Your task to perform on an android device: Open the stopwatch Image 0: 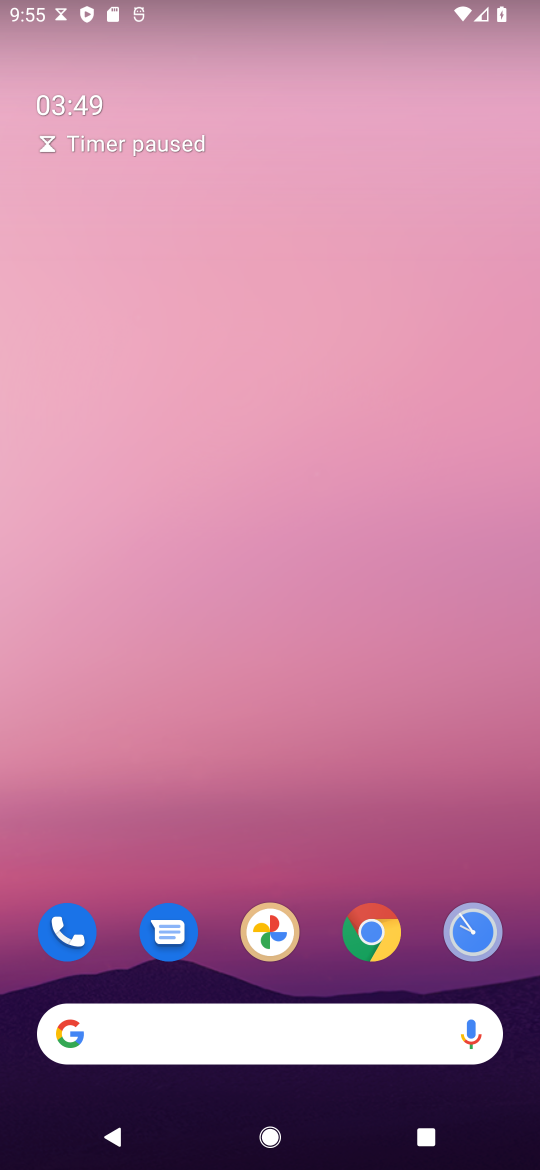
Step 0: drag from (204, 1036) to (372, 338)
Your task to perform on an android device: Open the stopwatch Image 1: 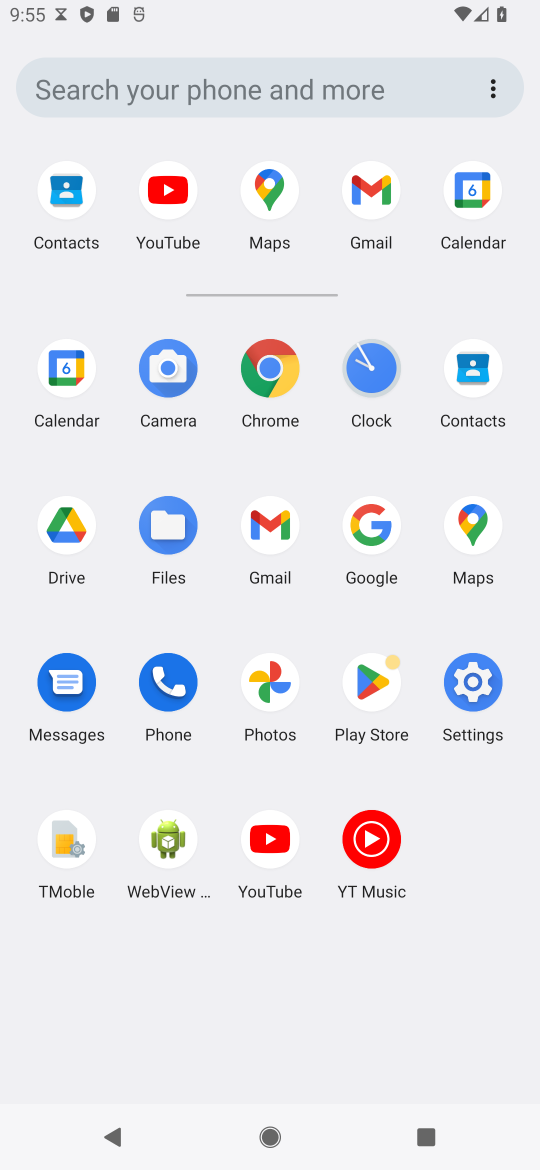
Step 1: click (372, 371)
Your task to perform on an android device: Open the stopwatch Image 2: 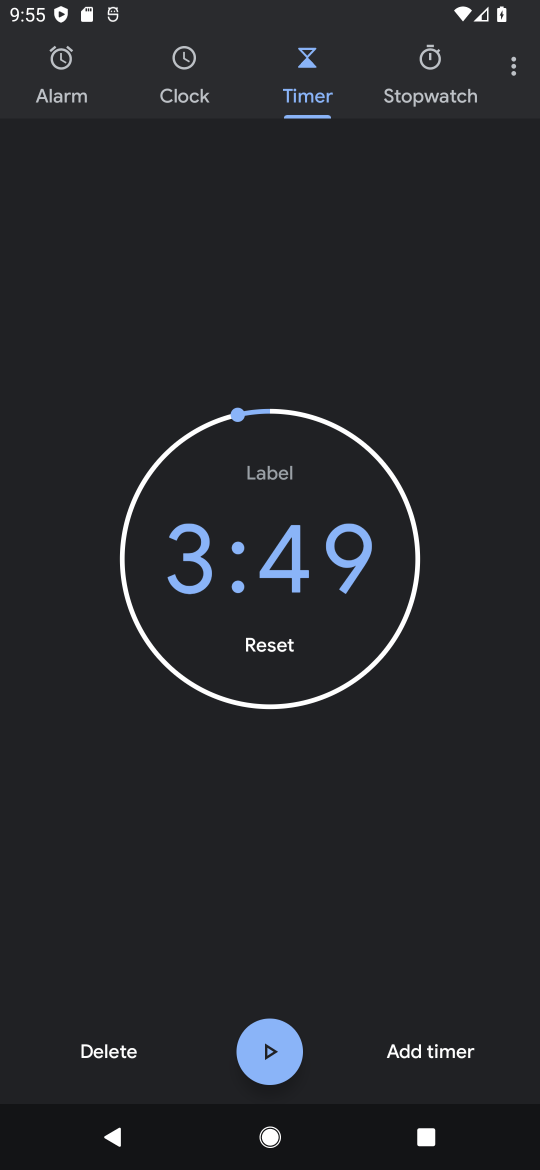
Step 2: click (436, 68)
Your task to perform on an android device: Open the stopwatch Image 3: 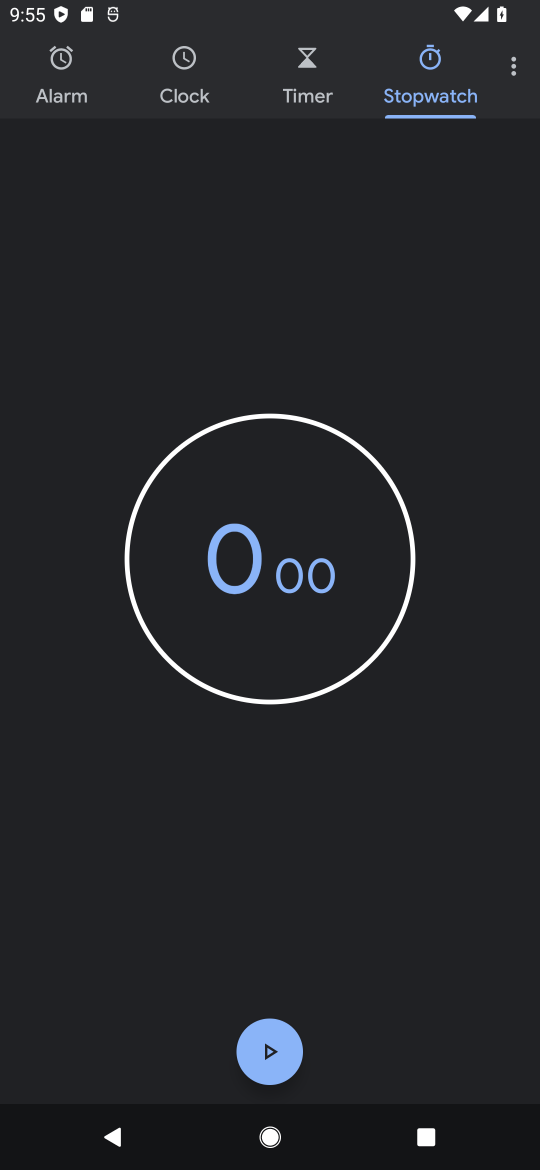
Step 3: task complete